Your task to perform on an android device: check data usage Image 0: 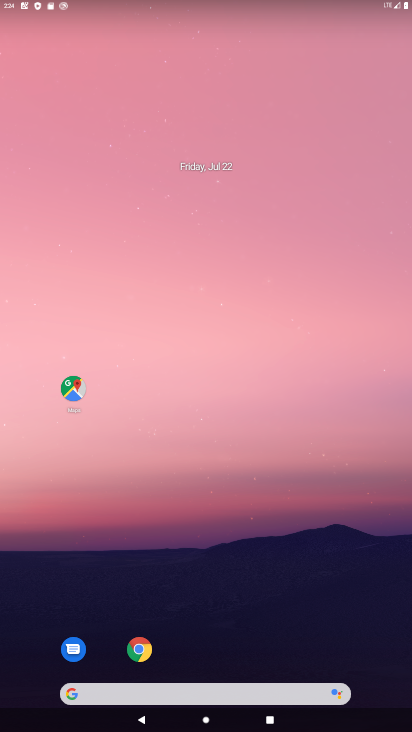
Step 0: drag from (186, 655) to (221, 61)
Your task to perform on an android device: check data usage Image 1: 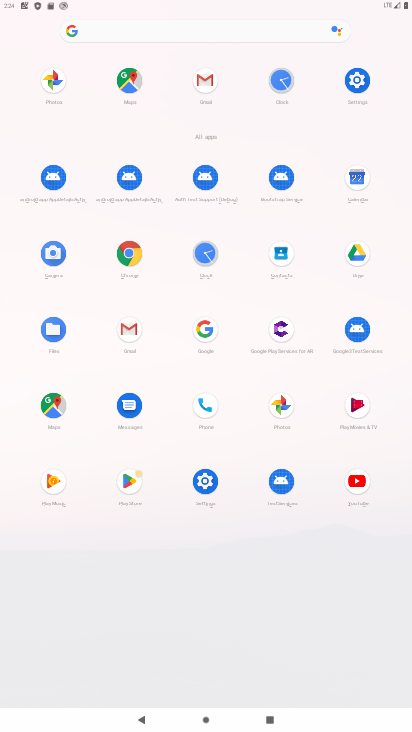
Step 1: click (192, 485)
Your task to perform on an android device: check data usage Image 2: 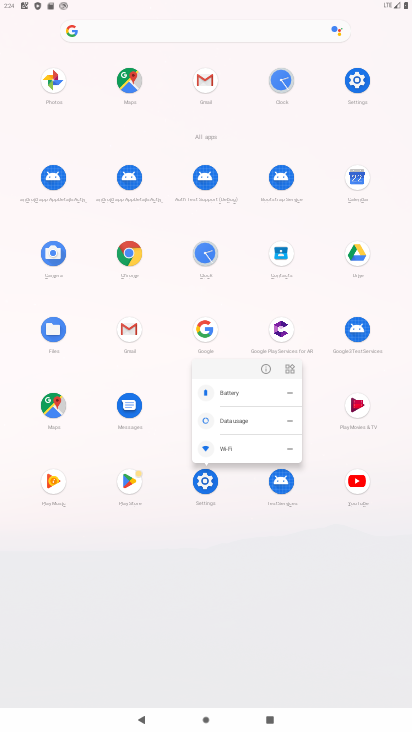
Step 2: click (264, 369)
Your task to perform on an android device: check data usage Image 3: 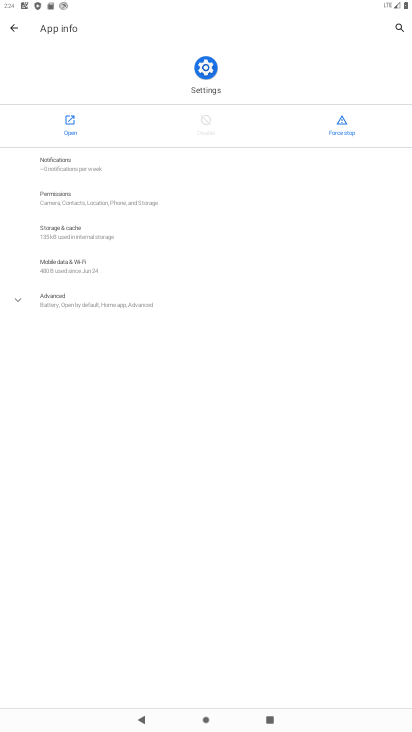
Step 3: click (72, 121)
Your task to perform on an android device: check data usage Image 4: 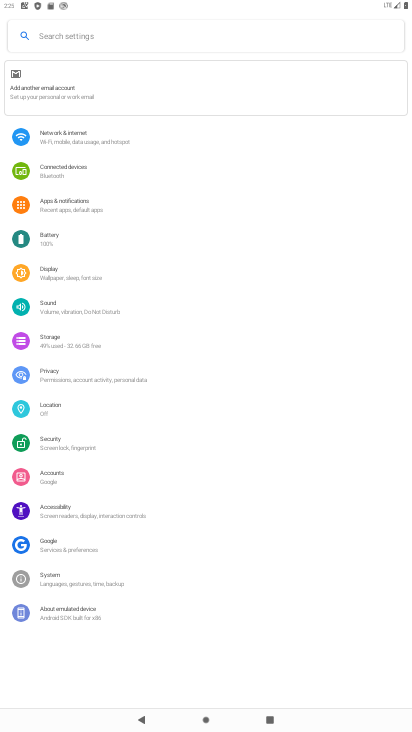
Step 4: click (119, 136)
Your task to perform on an android device: check data usage Image 5: 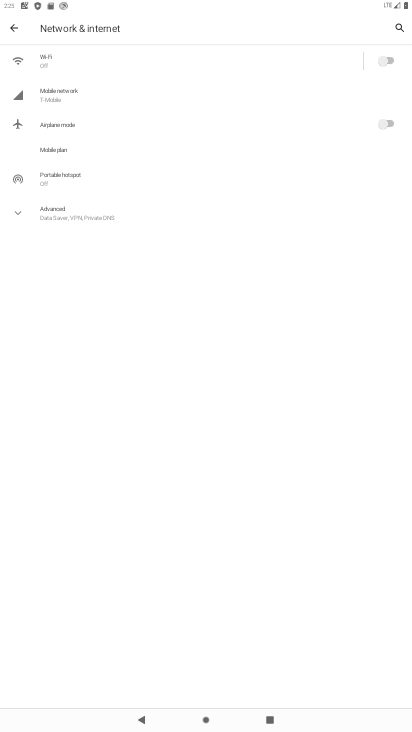
Step 5: click (115, 87)
Your task to perform on an android device: check data usage Image 6: 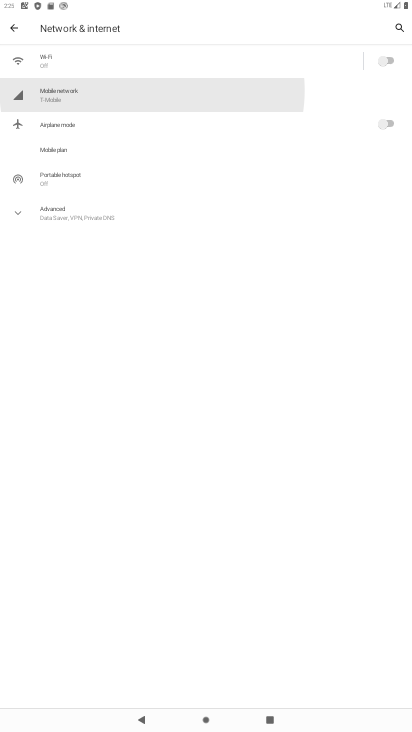
Step 6: click (115, 87)
Your task to perform on an android device: check data usage Image 7: 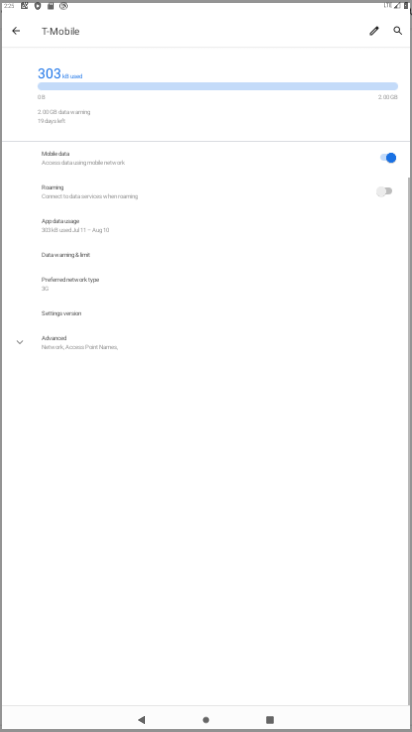
Step 7: task complete